Your task to perform on an android device: Open the Play Movies app and select the watchlist tab. Image 0: 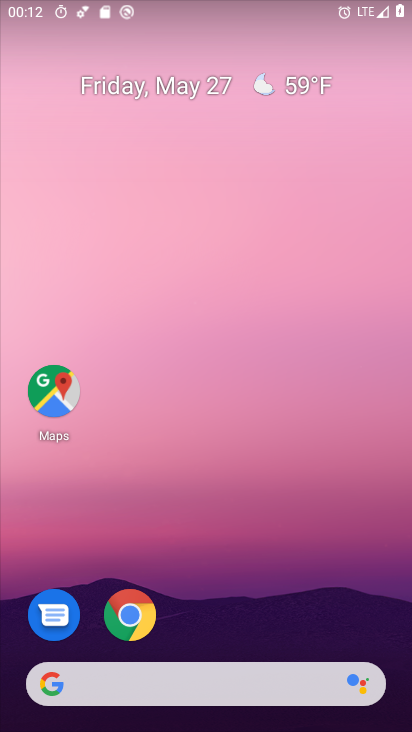
Step 0: drag from (213, 606) to (124, 4)
Your task to perform on an android device: Open the Play Movies app and select the watchlist tab. Image 1: 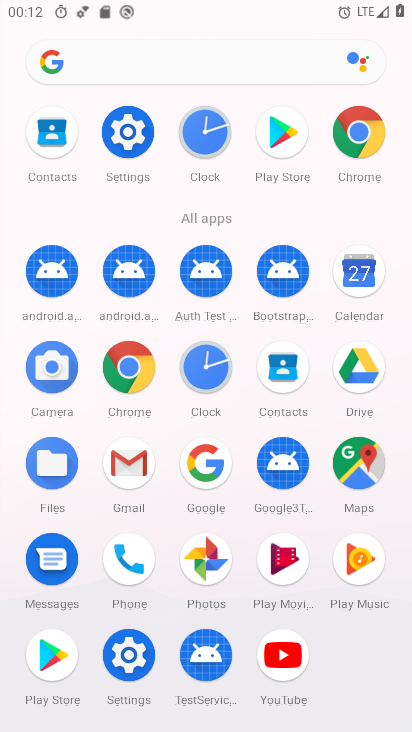
Step 1: click (305, 559)
Your task to perform on an android device: Open the Play Movies app and select the watchlist tab. Image 2: 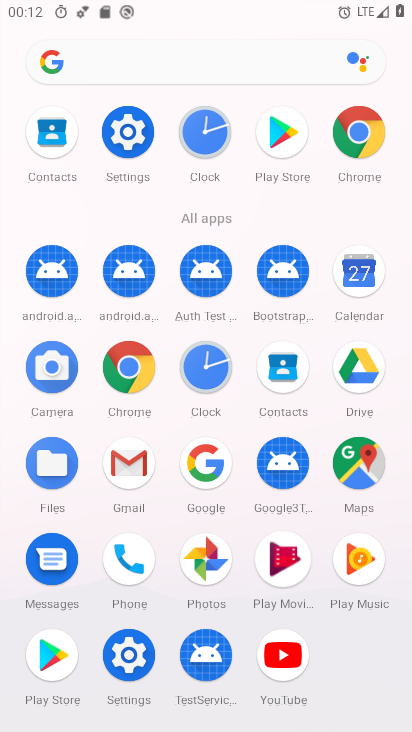
Step 2: click (305, 559)
Your task to perform on an android device: Open the Play Movies app and select the watchlist tab. Image 3: 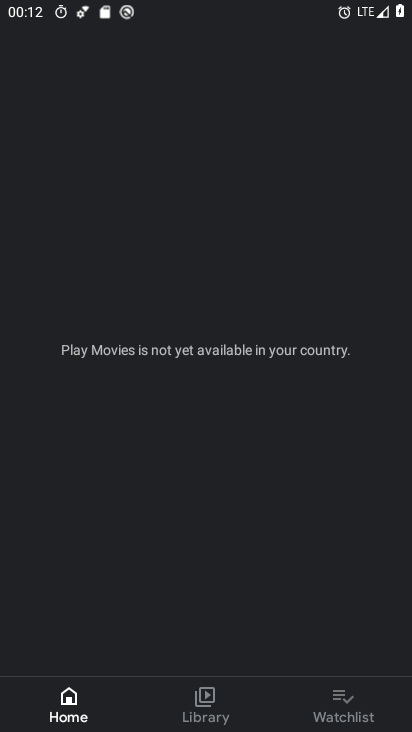
Step 3: click (344, 690)
Your task to perform on an android device: Open the Play Movies app and select the watchlist tab. Image 4: 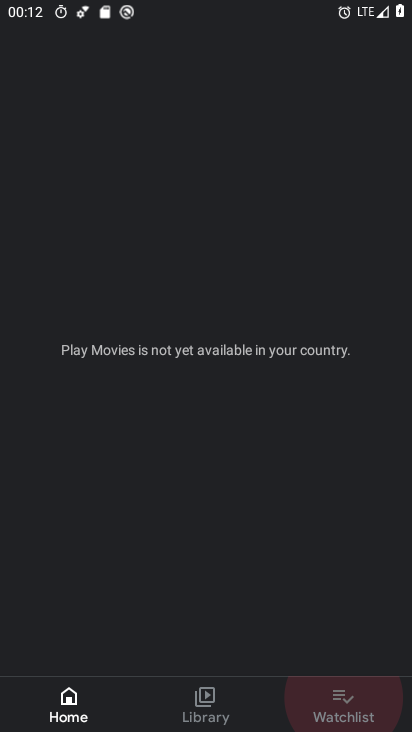
Step 4: click (349, 694)
Your task to perform on an android device: Open the Play Movies app and select the watchlist tab. Image 5: 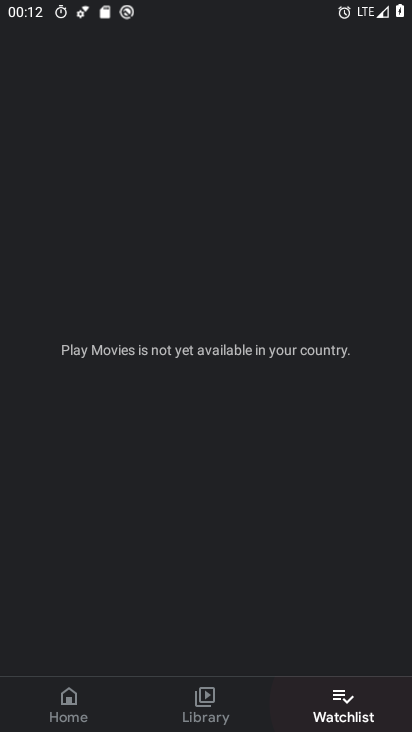
Step 5: click (351, 696)
Your task to perform on an android device: Open the Play Movies app and select the watchlist tab. Image 6: 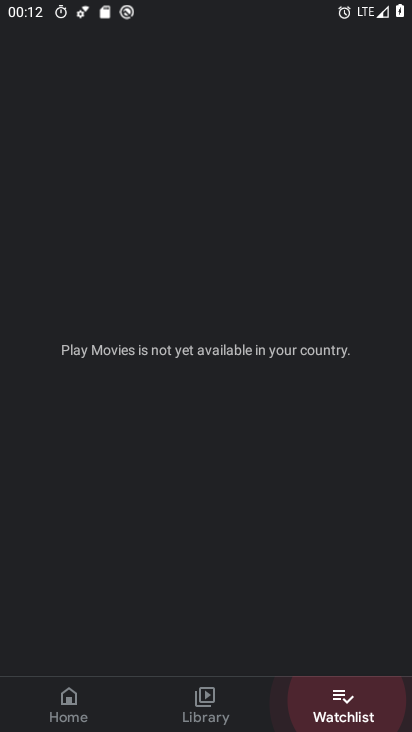
Step 6: click (354, 701)
Your task to perform on an android device: Open the Play Movies app and select the watchlist tab. Image 7: 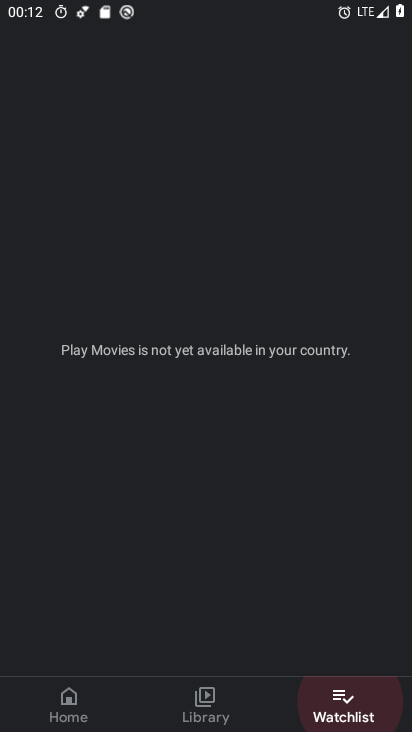
Step 7: click (359, 713)
Your task to perform on an android device: Open the Play Movies app and select the watchlist tab. Image 8: 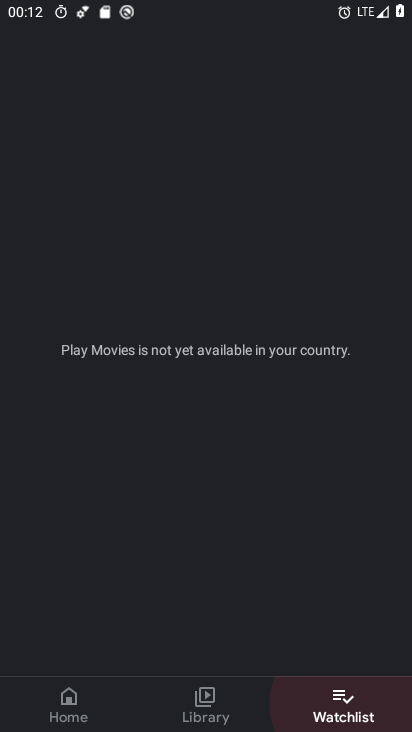
Step 8: click (360, 712)
Your task to perform on an android device: Open the Play Movies app and select the watchlist tab. Image 9: 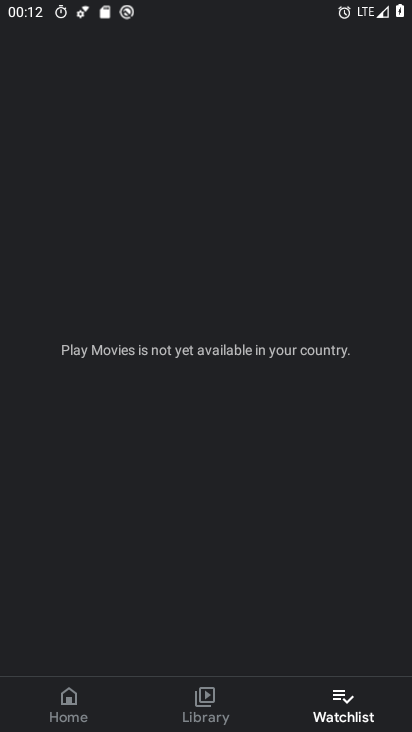
Step 9: click (348, 694)
Your task to perform on an android device: Open the Play Movies app and select the watchlist tab. Image 10: 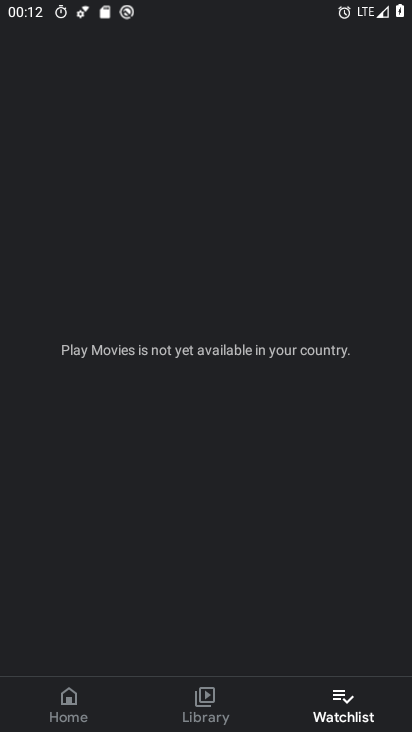
Step 10: task complete